Your task to perform on an android device: Toggle the flashlight Image 0: 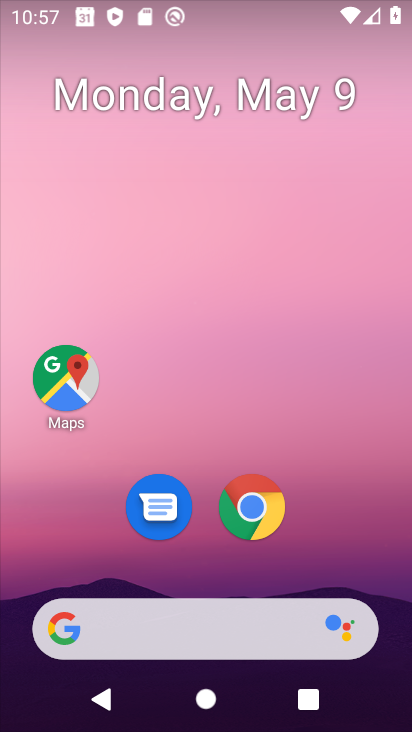
Step 0: drag from (298, 538) to (258, 92)
Your task to perform on an android device: Toggle the flashlight Image 1: 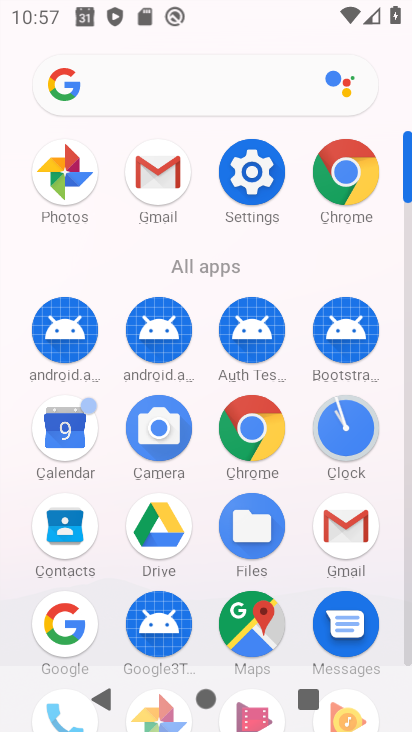
Step 1: click (247, 183)
Your task to perform on an android device: Toggle the flashlight Image 2: 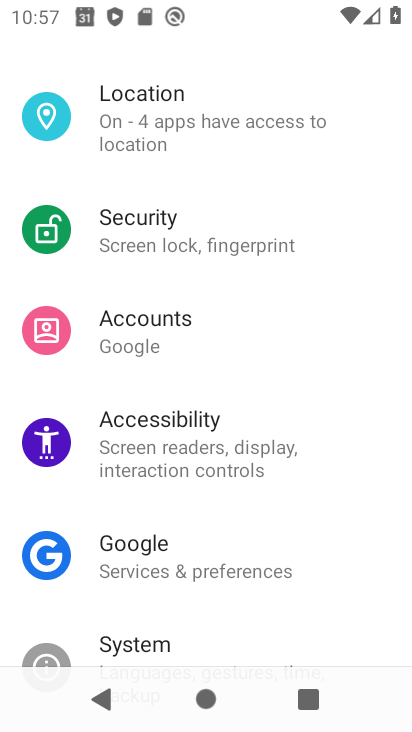
Step 2: drag from (254, 195) to (238, 582)
Your task to perform on an android device: Toggle the flashlight Image 3: 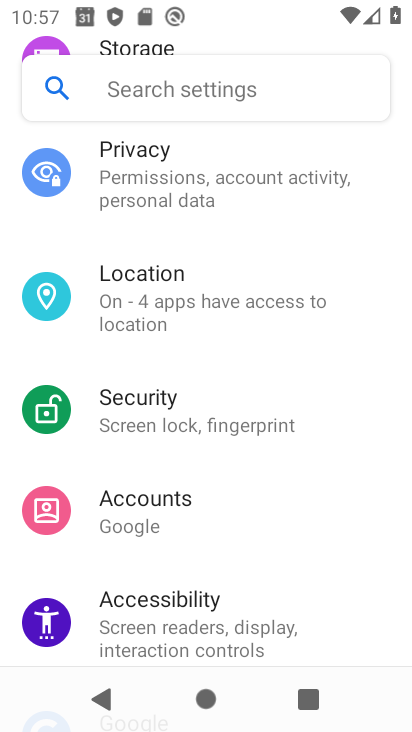
Step 3: drag from (233, 240) to (222, 580)
Your task to perform on an android device: Toggle the flashlight Image 4: 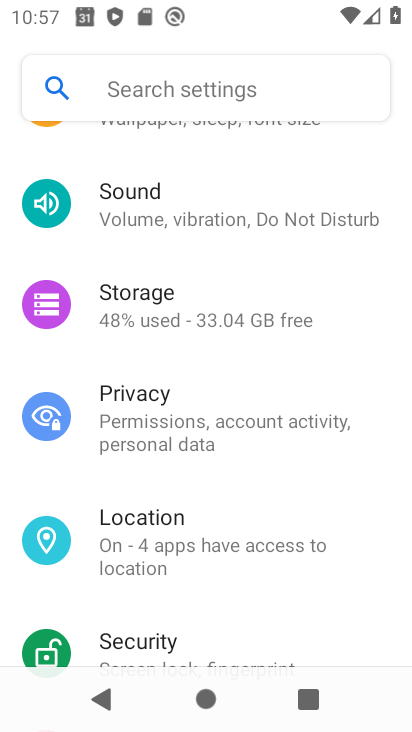
Step 4: drag from (191, 280) to (186, 579)
Your task to perform on an android device: Toggle the flashlight Image 5: 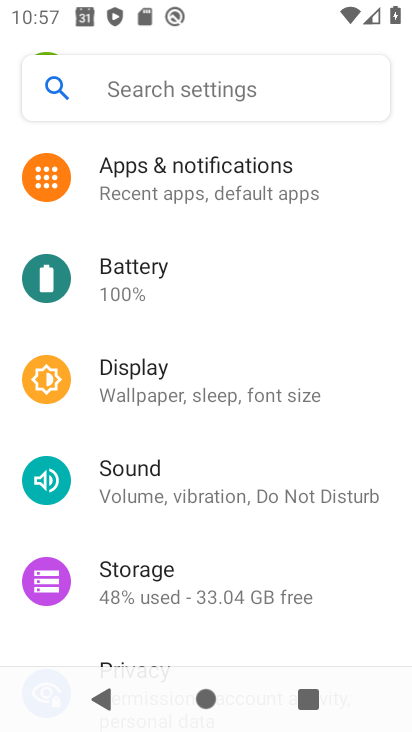
Step 5: click (158, 391)
Your task to perform on an android device: Toggle the flashlight Image 6: 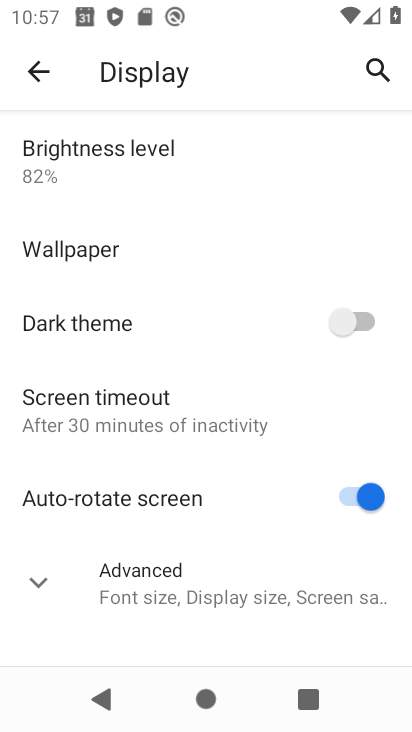
Step 6: click (189, 591)
Your task to perform on an android device: Toggle the flashlight Image 7: 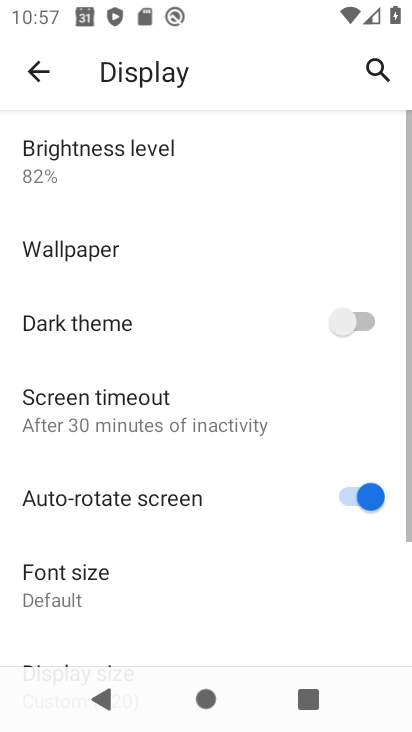
Step 7: task complete